Your task to perform on an android device: Open calendar and show me the fourth week of next month Image 0: 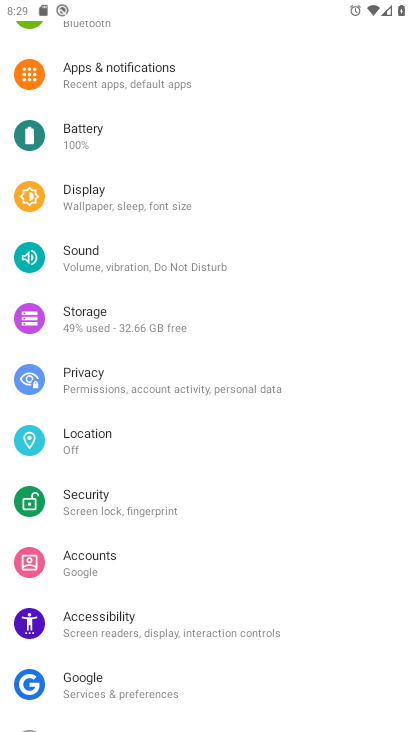
Step 0: press home button
Your task to perform on an android device: Open calendar and show me the fourth week of next month Image 1: 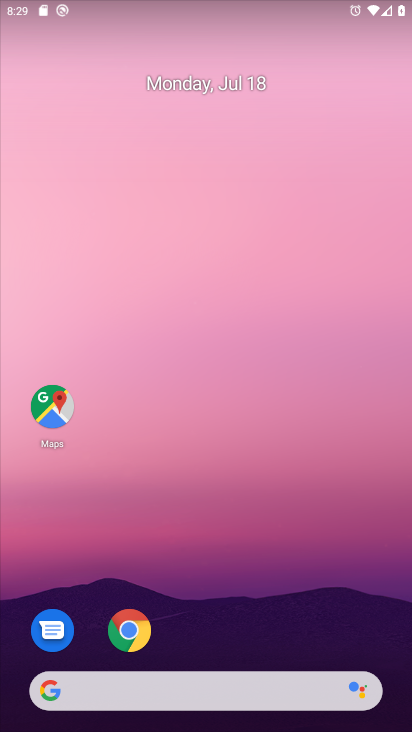
Step 1: drag from (197, 617) to (253, 145)
Your task to perform on an android device: Open calendar and show me the fourth week of next month Image 2: 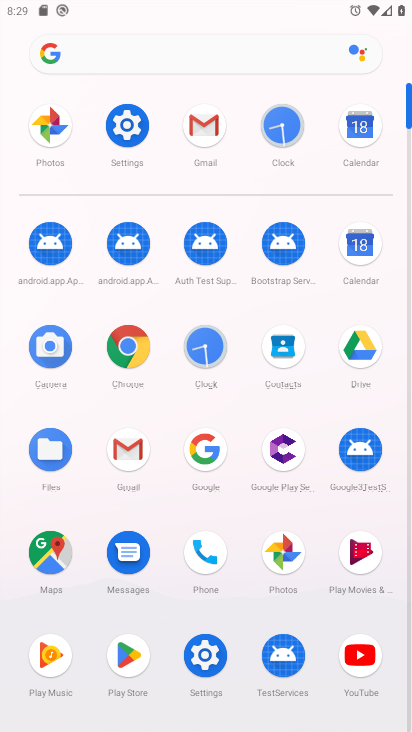
Step 2: click (343, 134)
Your task to perform on an android device: Open calendar and show me the fourth week of next month Image 3: 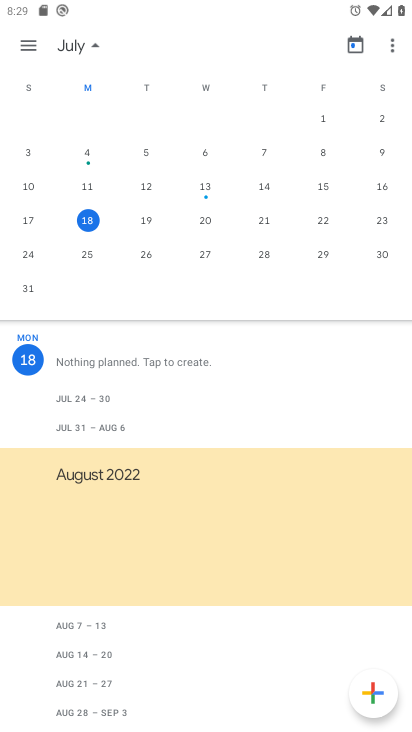
Step 3: drag from (297, 203) to (43, 155)
Your task to perform on an android device: Open calendar and show me the fourth week of next month Image 4: 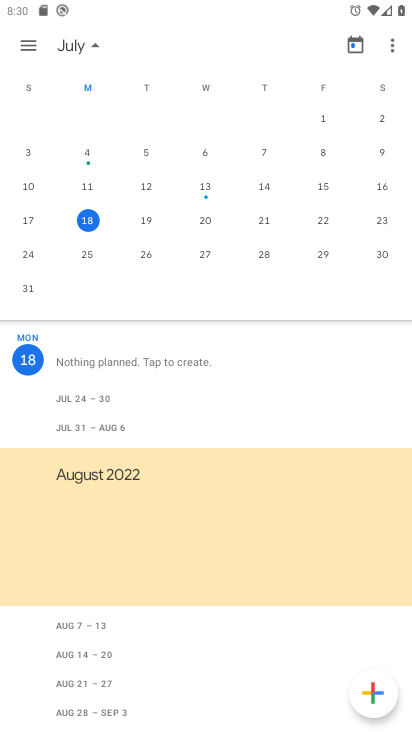
Step 4: drag from (363, 200) to (61, 171)
Your task to perform on an android device: Open calendar and show me the fourth week of next month Image 5: 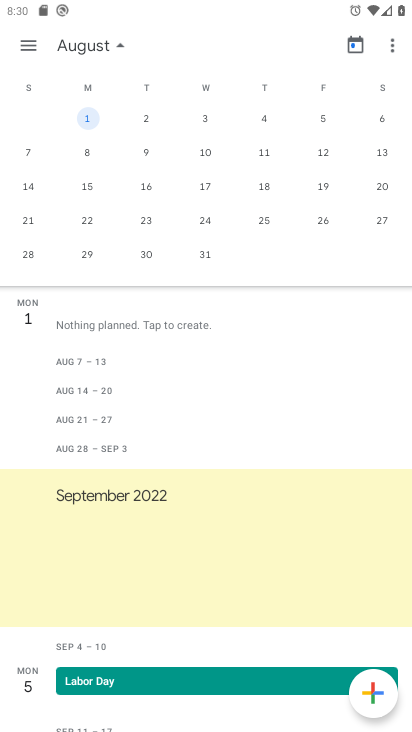
Step 5: click (21, 212)
Your task to perform on an android device: Open calendar and show me the fourth week of next month Image 6: 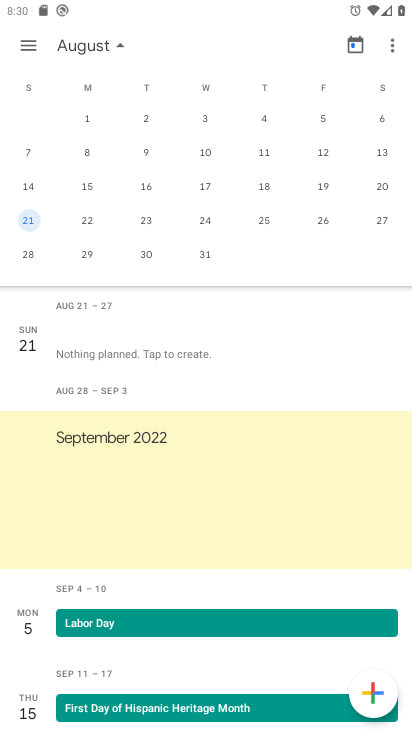
Step 6: task complete